Your task to perform on an android device: change notifications settings Image 0: 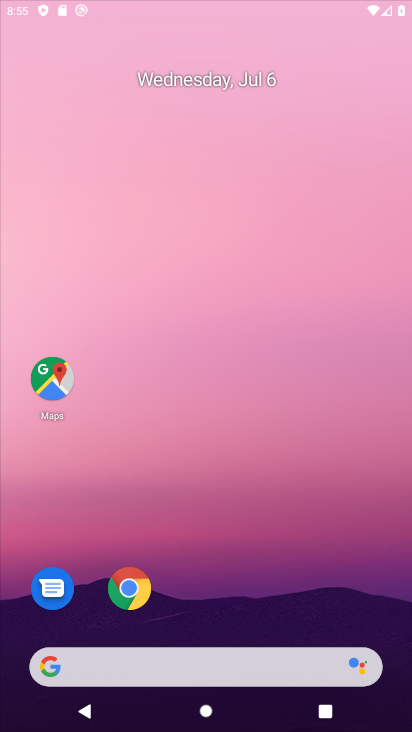
Step 0: drag from (171, 625) to (172, 139)
Your task to perform on an android device: change notifications settings Image 1: 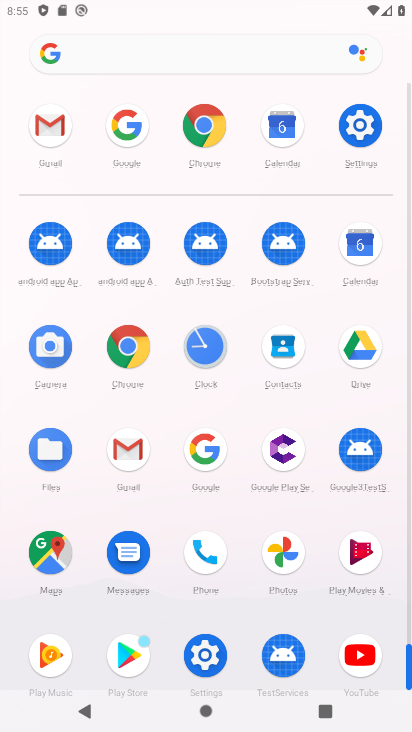
Step 1: click (206, 652)
Your task to perform on an android device: change notifications settings Image 2: 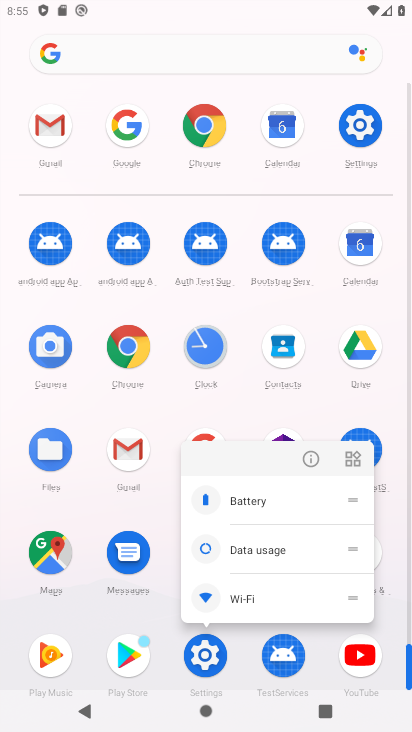
Step 2: click (306, 455)
Your task to perform on an android device: change notifications settings Image 3: 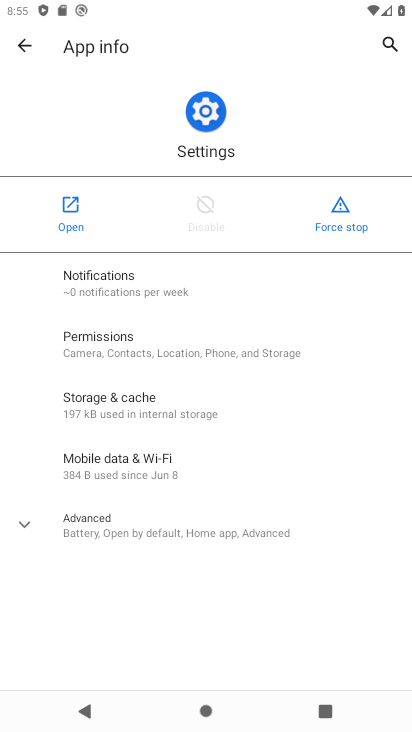
Step 3: click (69, 213)
Your task to perform on an android device: change notifications settings Image 4: 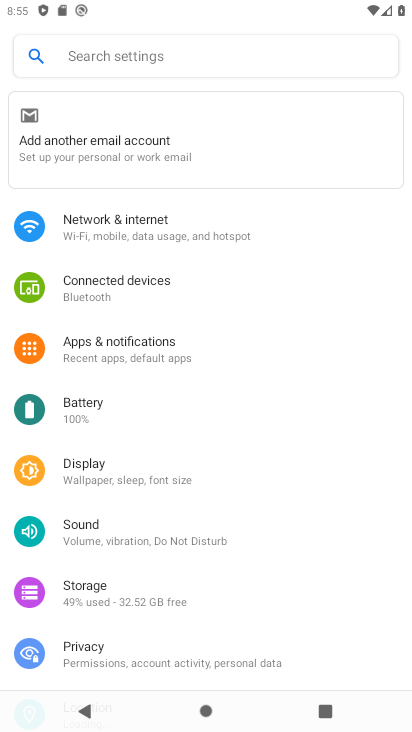
Step 4: click (150, 354)
Your task to perform on an android device: change notifications settings Image 5: 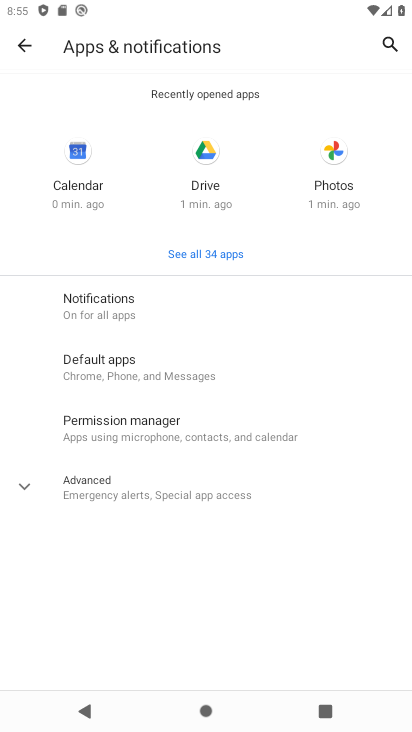
Step 5: click (152, 307)
Your task to perform on an android device: change notifications settings Image 6: 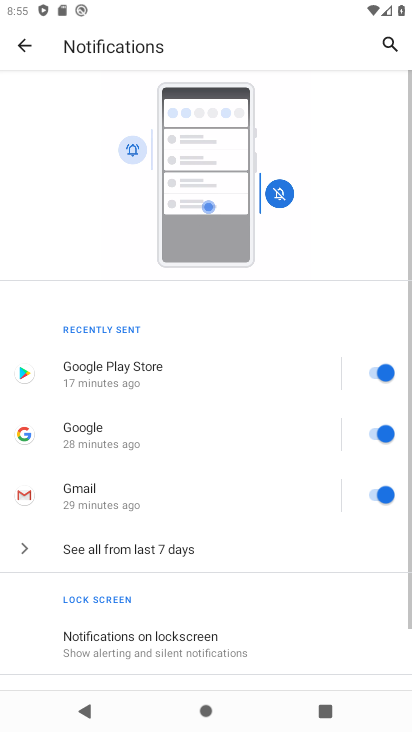
Step 6: drag from (175, 562) to (253, 185)
Your task to perform on an android device: change notifications settings Image 7: 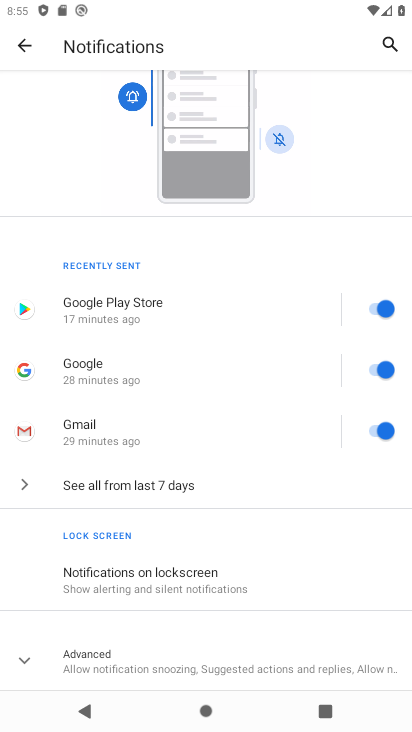
Step 7: drag from (248, 455) to (282, 200)
Your task to perform on an android device: change notifications settings Image 8: 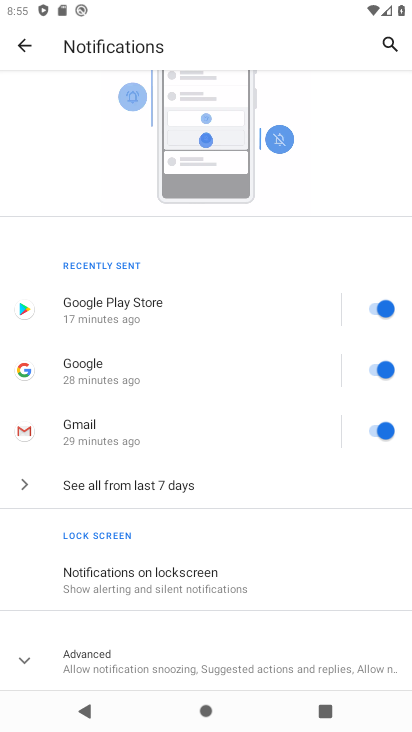
Step 8: click (116, 656)
Your task to perform on an android device: change notifications settings Image 9: 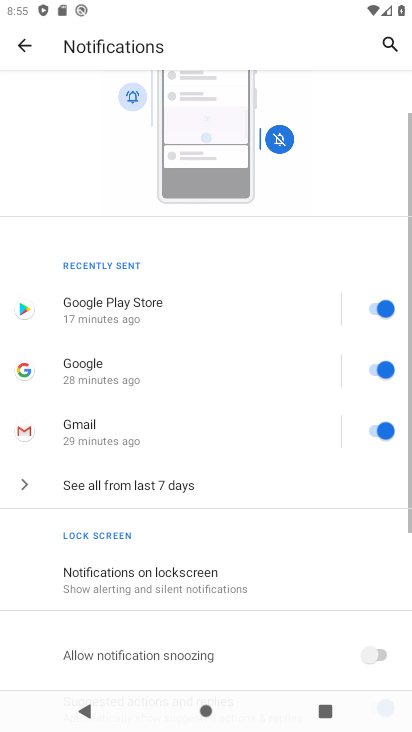
Step 9: drag from (116, 656) to (290, 194)
Your task to perform on an android device: change notifications settings Image 10: 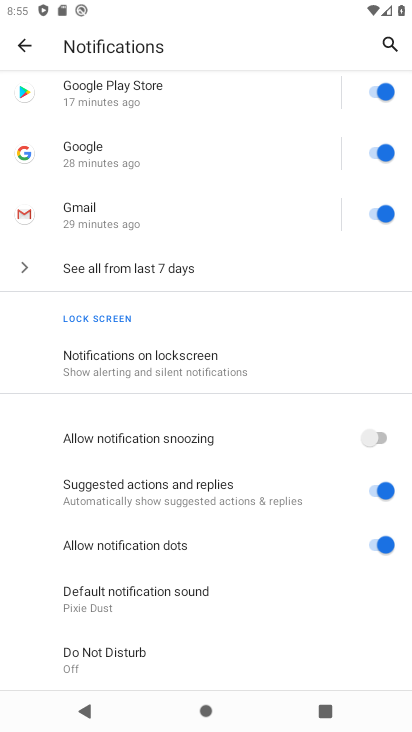
Step 10: drag from (194, 558) to (257, 389)
Your task to perform on an android device: change notifications settings Image 11: 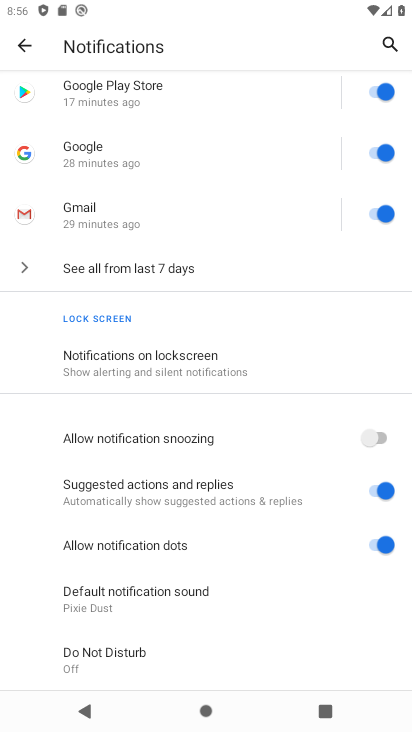
Step 11: drag from (239, 346) to (235, 711)
Your task to perform on an android device: change notifications settings Image 12: 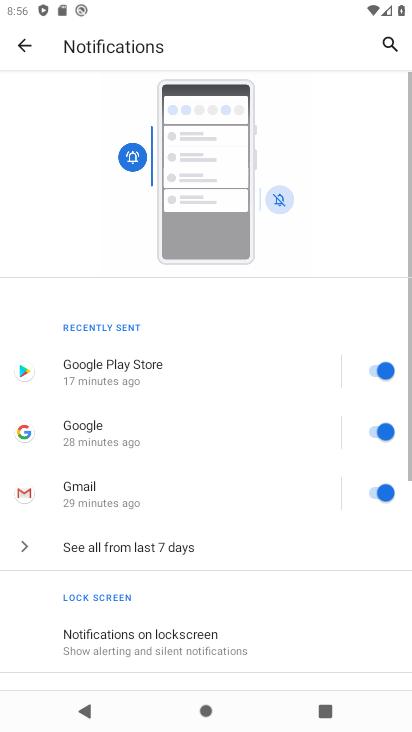
Step 12: drag from (291, 240) to (332, 716)
Your task to perform on an android device: change notifications settings Image 13: 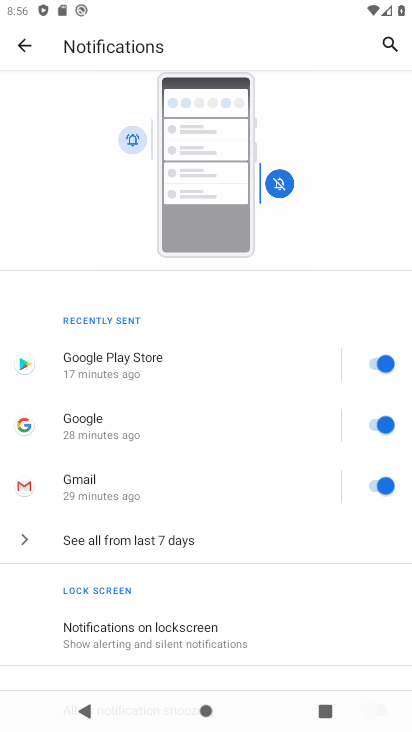
Step 13: click (376, 369)
Your task to perform on an android device: change notifications settings Image 14: 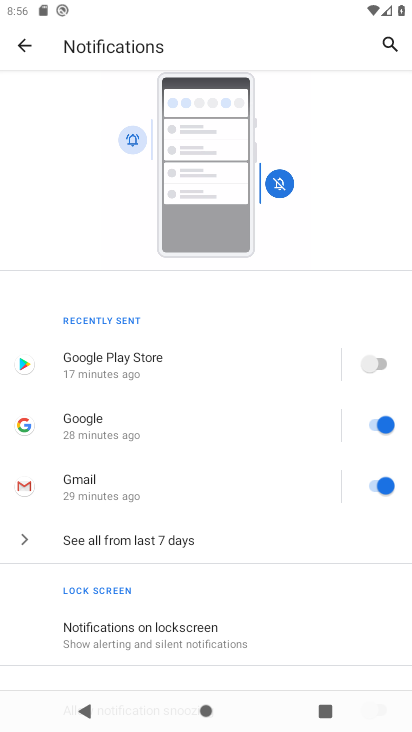
Step 14: task complete